Your task to perform on an android device: open wifi settings Image 0: 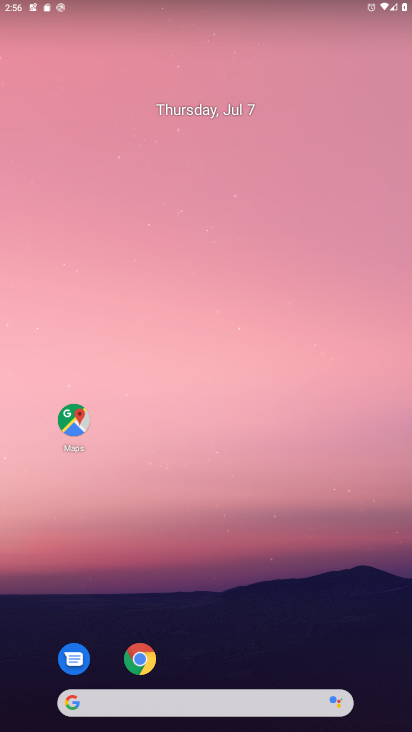
Step 0: drag from (229, 552) to (267, 228)
Your task to perform on an android device: open wifi settings Image 1: 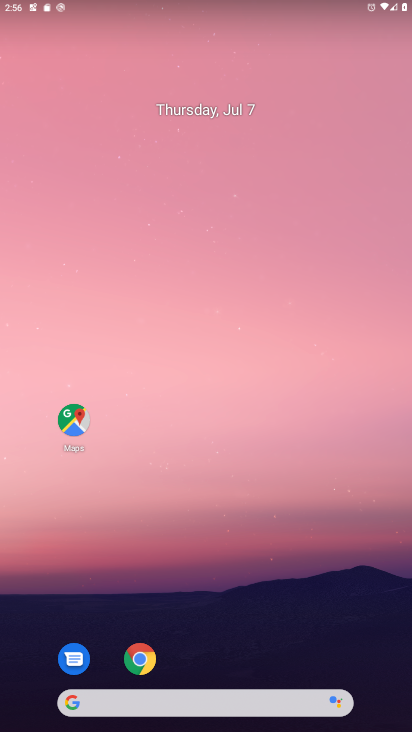
Step 1: drag from (191, 660) to (282, 237)
Your task to perform on an android device: open wifi settings Image 2: 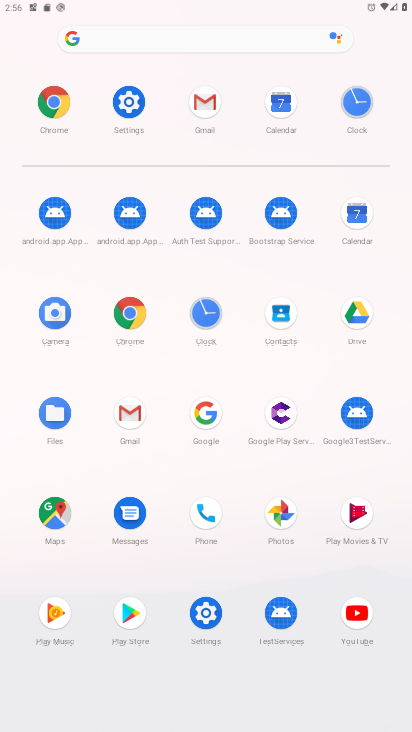
Step 2: click (209, 624)
Your task to perform on an android device: open wifi settings Image 3: 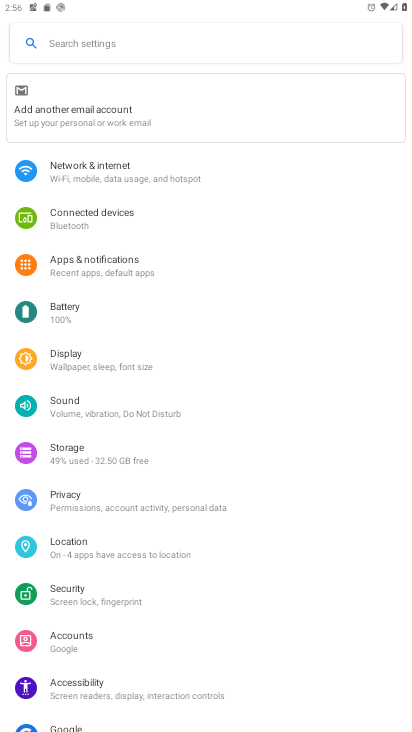
Step 3: drag from (175, 491) to (224, 147)
Your task to perform on an android device: open wifi settings Image 4: 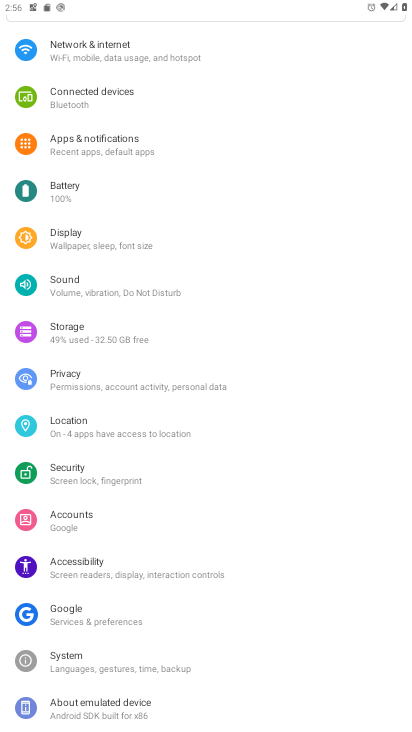
Step 4: drag from (143, 281) to (299, 718)
Your task to perform on an android device: open wifi settings Image 5: 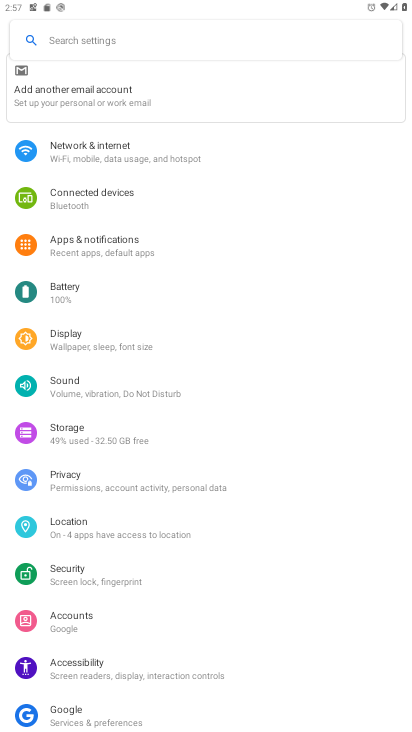
Step 5: click (110, 155)
Your task to perform on an android device: open wifi settings Image 6: 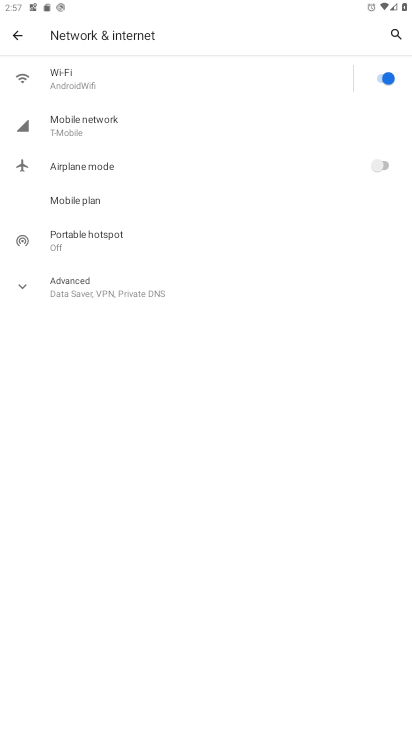
Step 6: click (156, 83)
Your task to perform on an android device: open wifi settings Image 7: 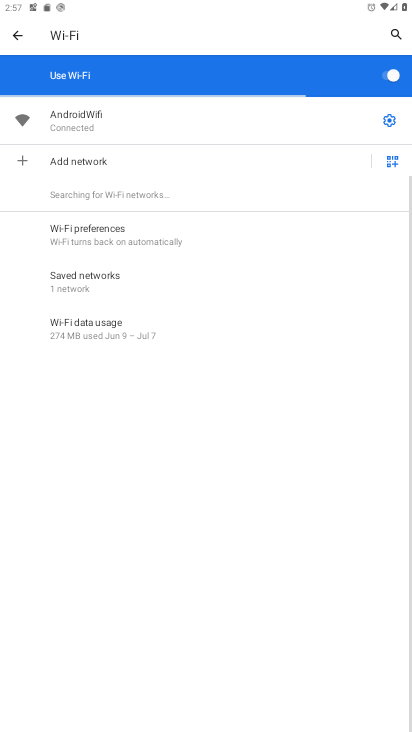
Step 7: click (390, 126)
Your task to perform on an android device: open wifi settings Image 8: 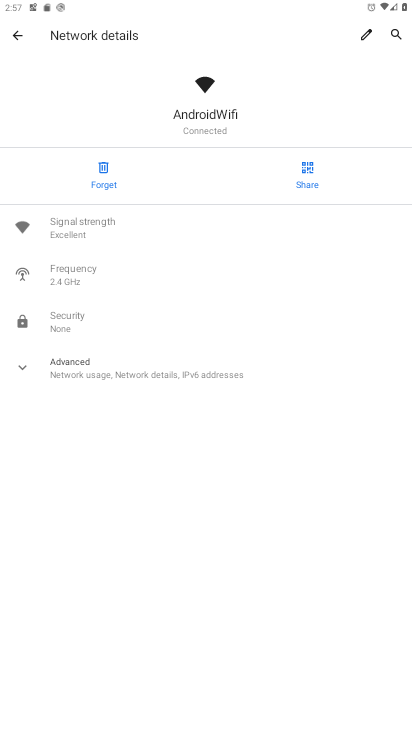
Step 8: task complete